Your task to perform on an android device: add a contact Image 0: 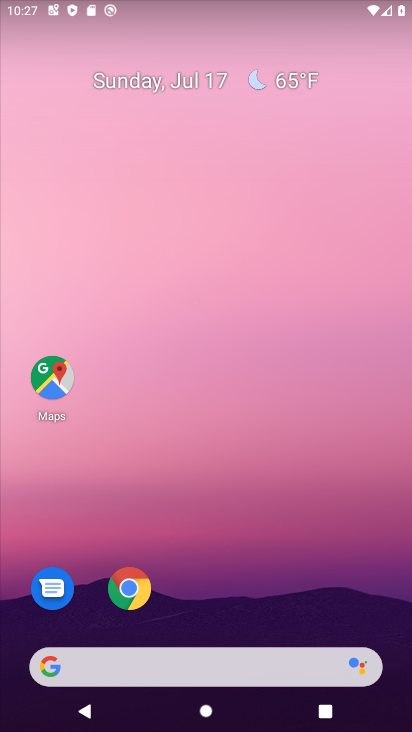
Step 0: drag from (267, 558) to (185, 62)
Your task to perform on an android device: add a contact Image 1: 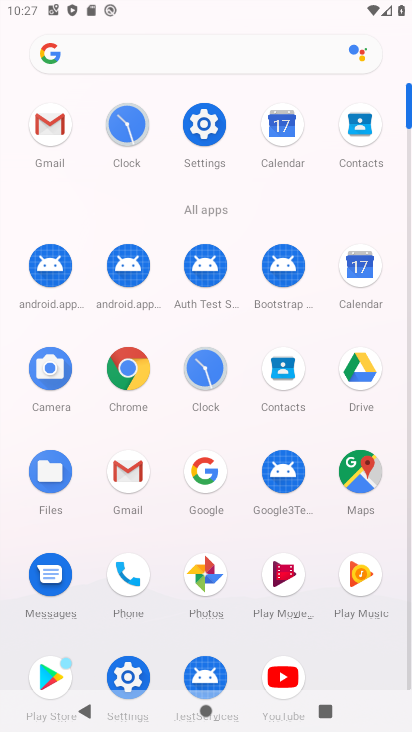
Step 1: click (278, 367)
Your task to perform on an android device: add a contact Image 2: 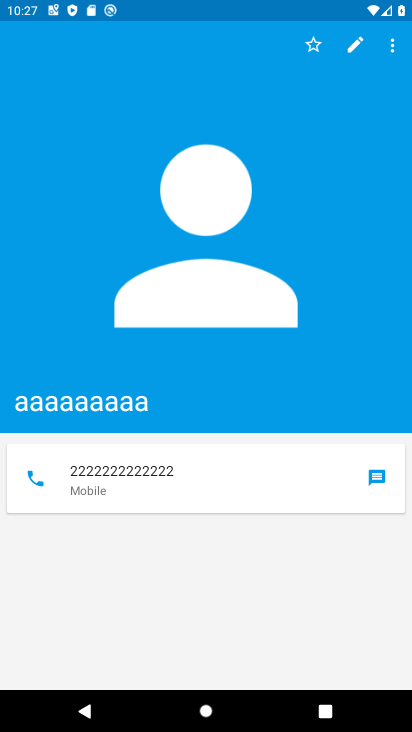
Step 2: press back button
Your task to perform on an android device: add a contact Image 3: 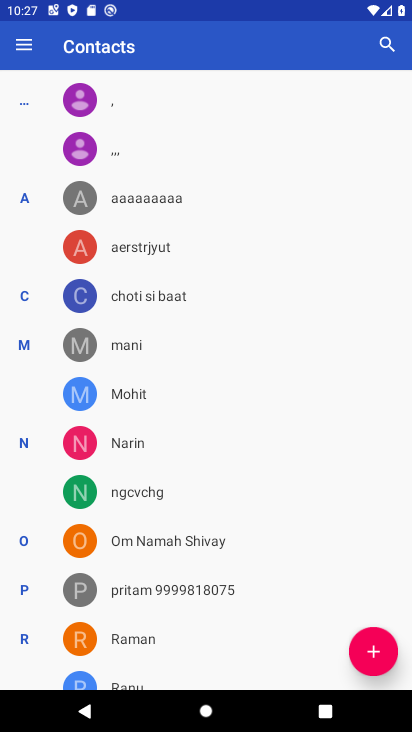
Step 3: click (370, 654)
Your task to perform on an android device: add a contact Image 4: 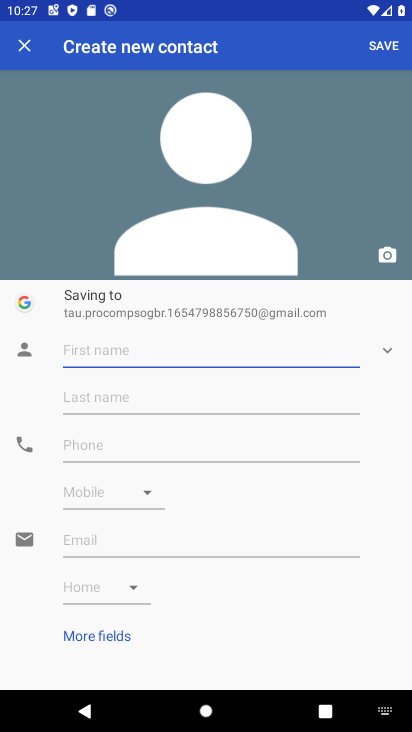
Step 4: type "lklkl"
Your task to perform on an android device: add a contact Image 5: 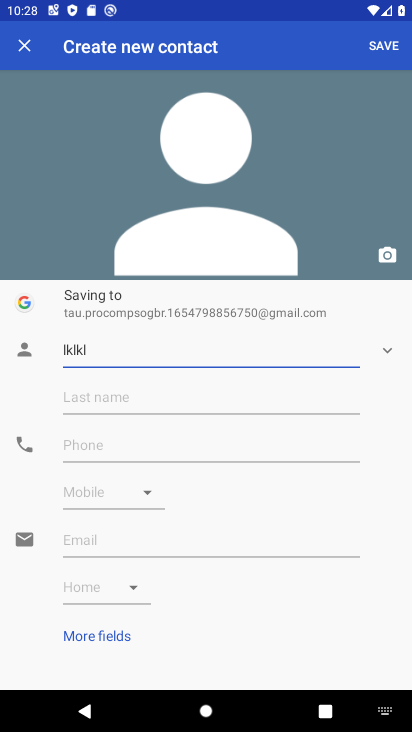
Step 5: click (145, 442)
Your task to perform on an android device: add a contact Image 6: 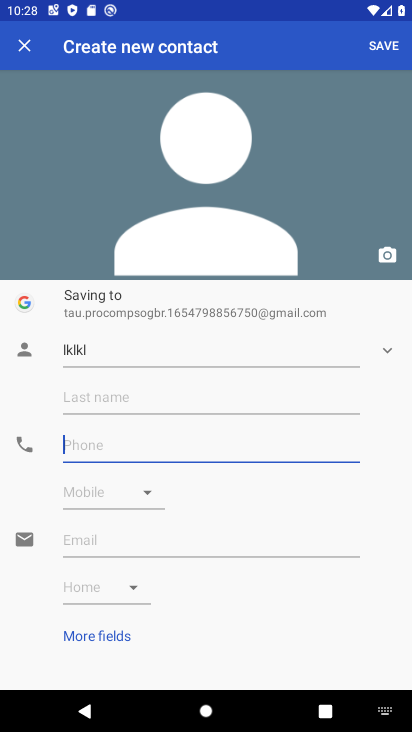
Step 6: type "0987654321"
Your task to perform on an android device: add a contact Image 7: 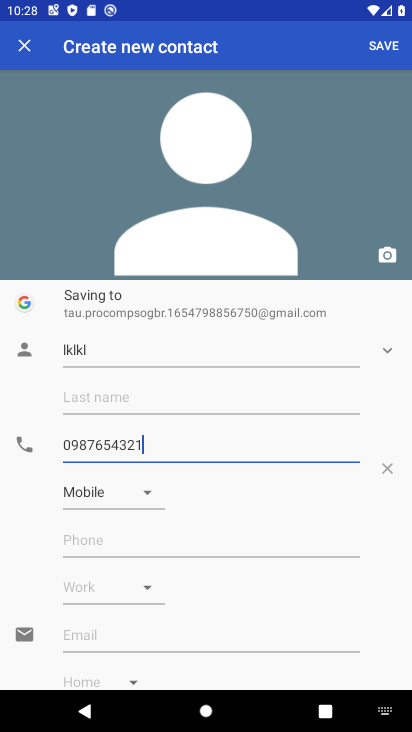
Step 7: click (364, 59)
Your task to perform on an android device: add a contact Image 8: 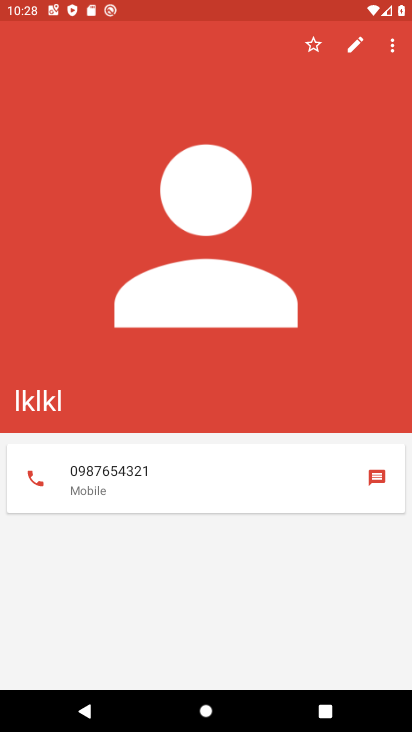
Step 8: task complete